Your task to perform on an android device: Open maps Image 0: 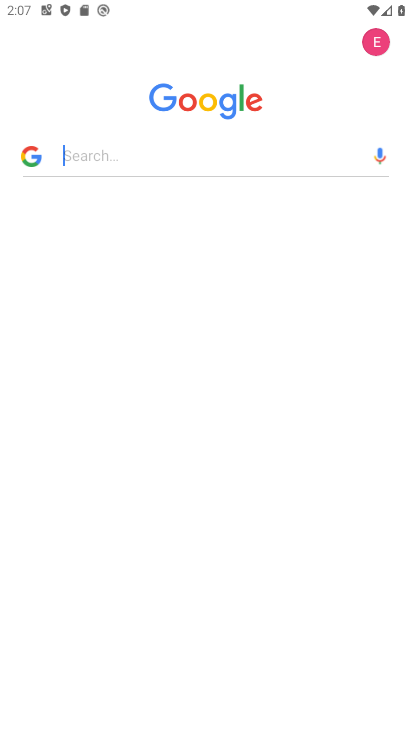
Step 0: drag from (277, 609) to (323, 377)
Your task to perform on an android device: Open maps Image 1: 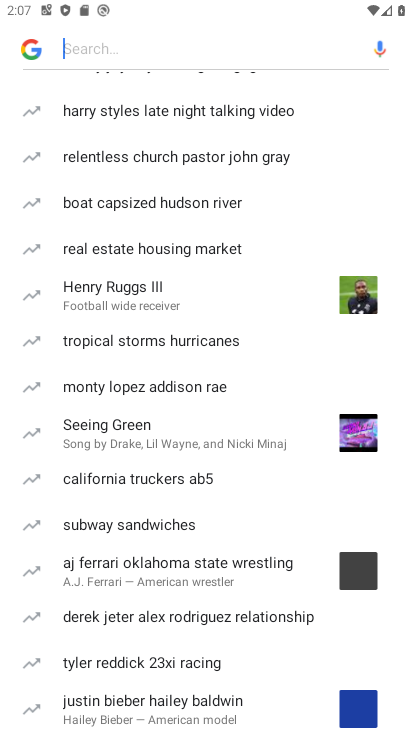
Step 1: press home button
Your task to perform on an android device: Open maps Image 2: 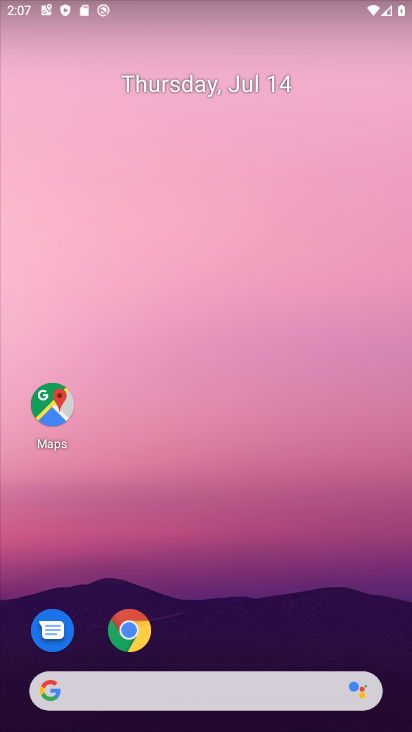
Step 2: click (42, 412)
Your task to perform on an android device: Open maps Image 3: 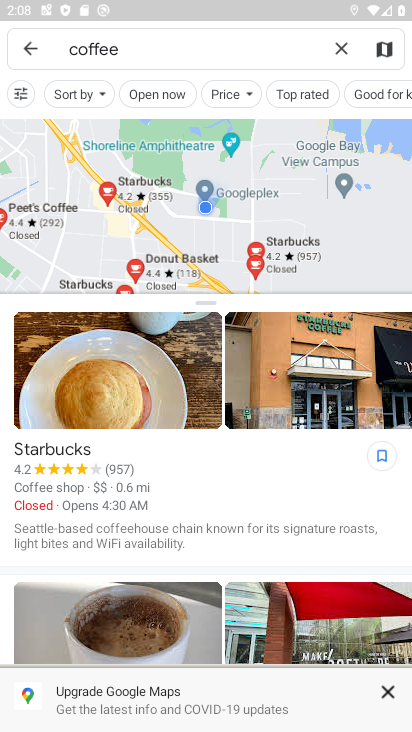
Step 3: task complete